Your task to perform on an android device: change notifications settings Image 0: 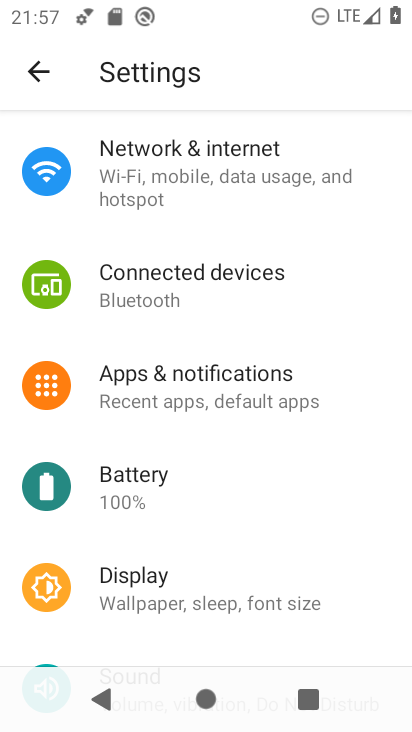
Step 0: click (228, 387)
Your task to perform on an android device: change notifications settings Image 1: 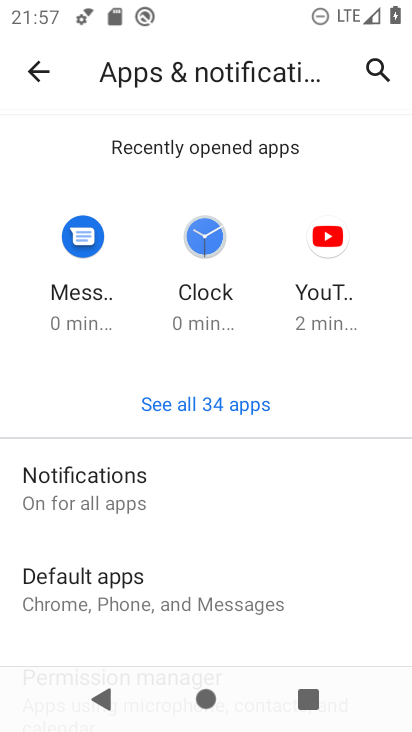
Step 1: click (140, 493)
Your task to perform on an android device: change notifications settings Image 2: 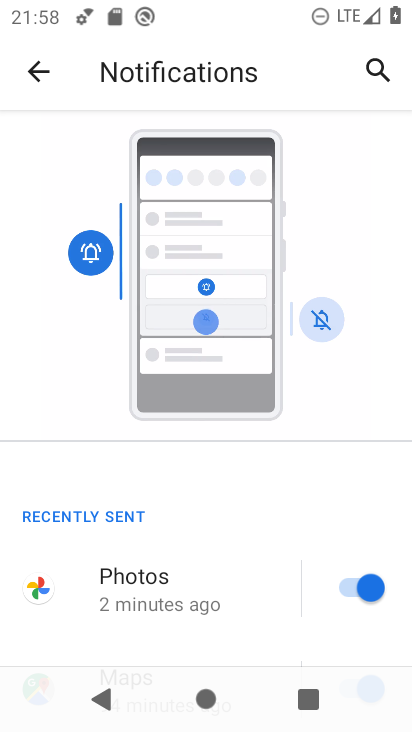
Step 2: drag from (236, 517) to (214, 227)
Your task to perform on an android device: change notifications settings Image 3: 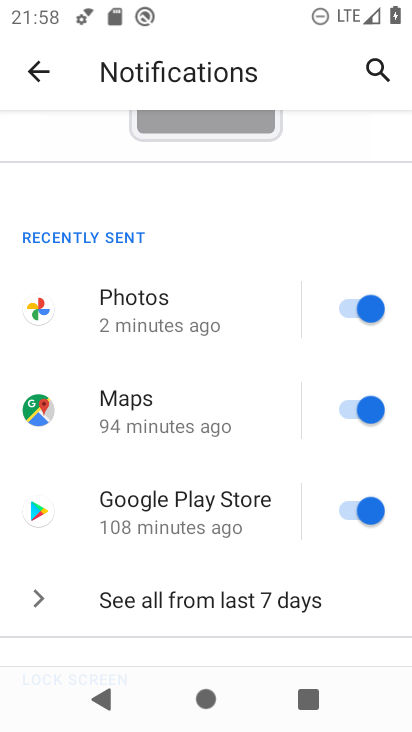
Step 3: click (217, 601)
Your task to perform on an android device: change notifications settings Image 4: 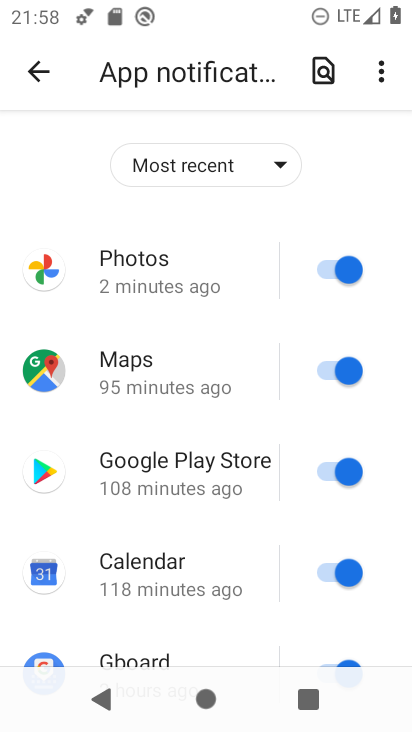
Step 4: drag from (230, 537) to (211, 207)
Your task to perform on an android device: change notifications settings Image 5: 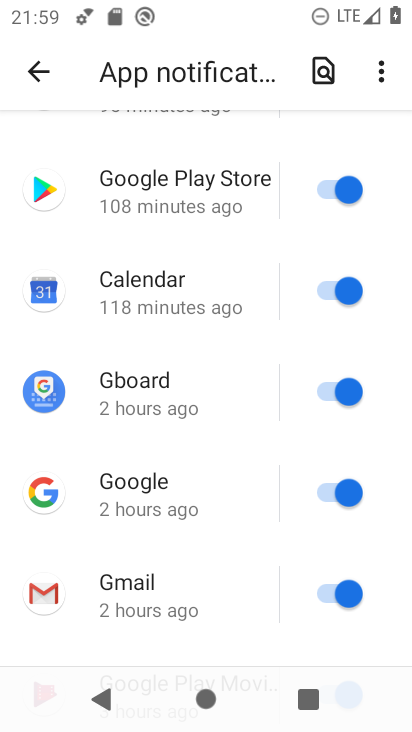
Step 5: click (331, 186)
Your task to perform on an android device: change notifications settings Image 6: 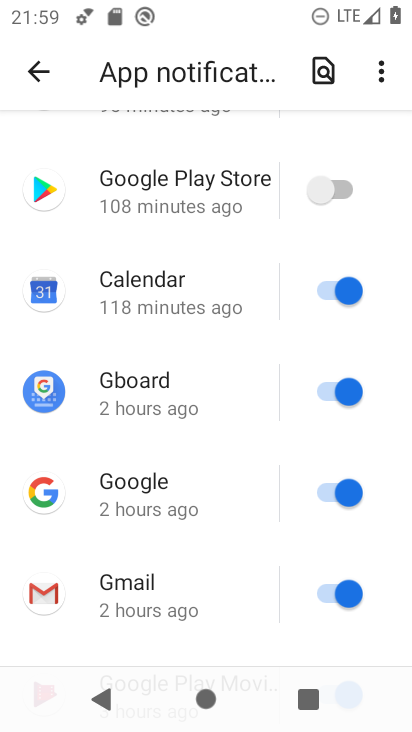
Step 6: click (324, 281)
Your task to perform on an android device: change notifications settings Image 7: 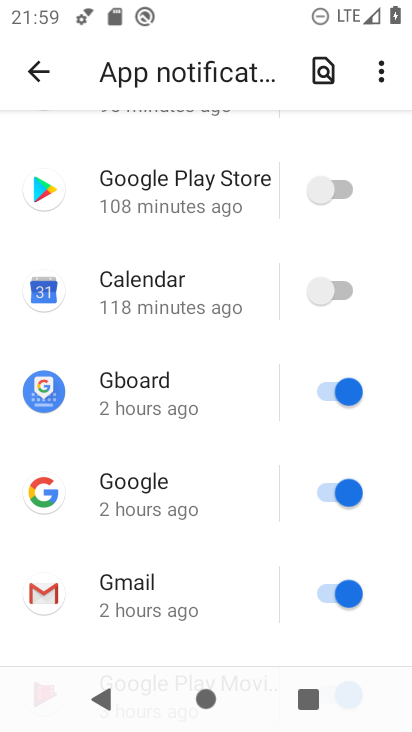
Step 7: click (327, 392)
Your task to perform on an android device: change notifications settings Image 8: 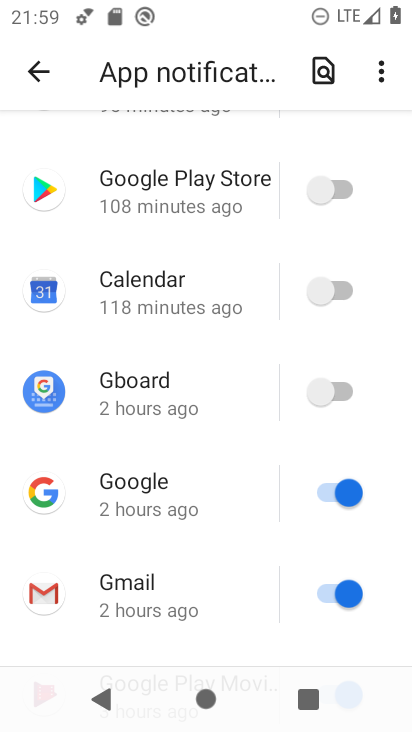
Step 8: click (329, 488)
Your task to perform on an android device: change notifications settings Image 9: 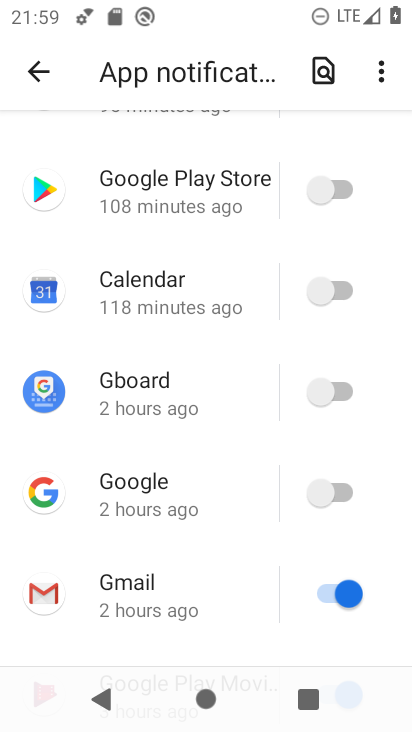
Step 9: click (332, 585)
Your task to perform on an android device: change notifications settings Image 10: 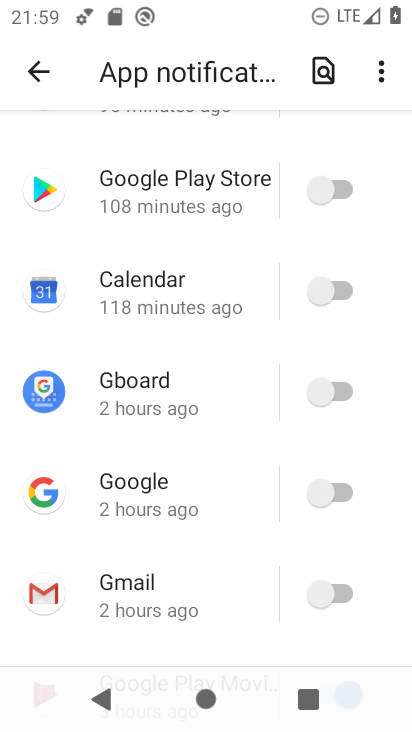
Step 10: drag from (246, 583) to (280, 209)
Your task to perform on an android device: change notifications settings Image 11: 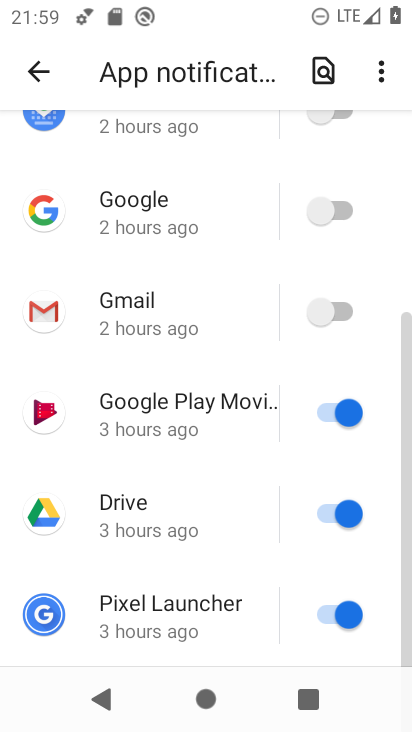
Step 11: drag from (177, 481) to (221, 250)
Your task to perform on an android device: change notifications settings Image 12: 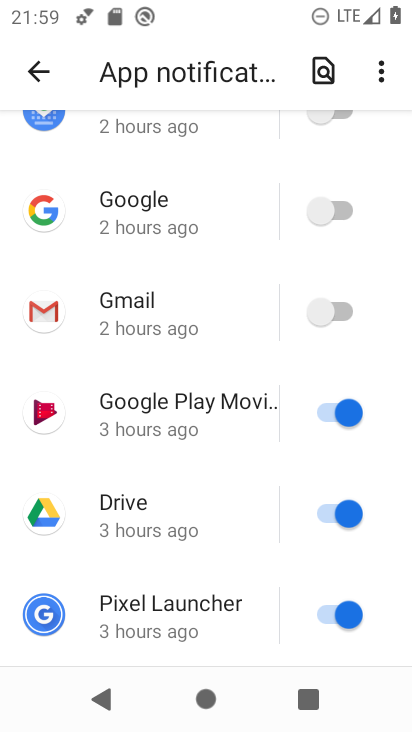
Step 12: click (324, 409)
Your task to perform on an android device: change notifications settings Image 13: 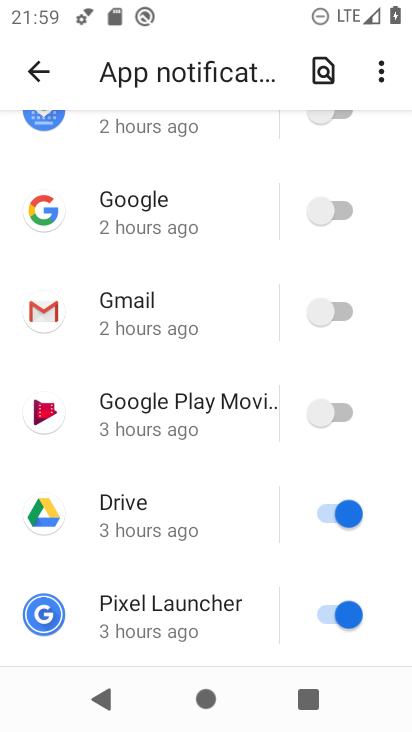
Step 13: click (329, 515)
Your task to perform on an android device: change notifications settings Image 14: 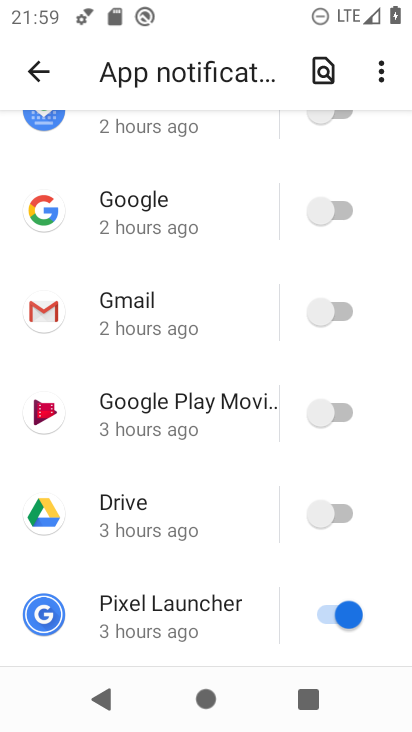
Step 14: click (332, 619)
Your task to perform on an android device: change notifications settings Image 15: 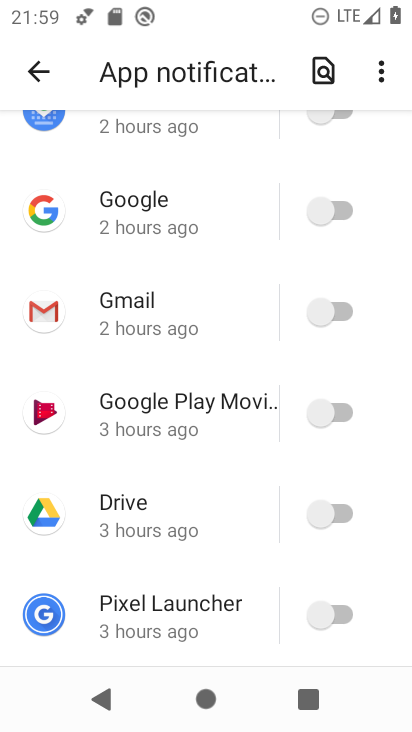
Step 15: task complete